Your task to perform on an android device: check storage Image 0: 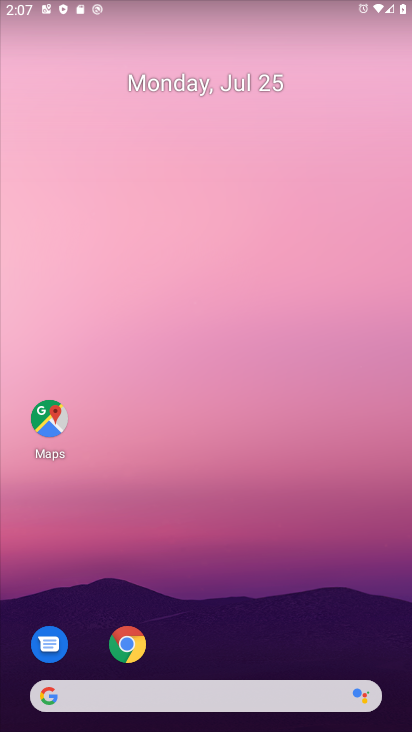
Step 0: drag from (392, 641) to (173, 4)
Your task to perform on an android device: check storage Image 1: 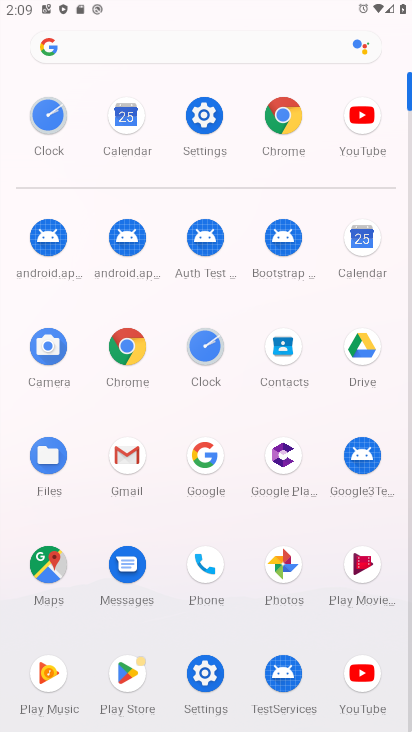
Step 1: click (211, 668)
Your task to perform on an android device: check storage Image 2: 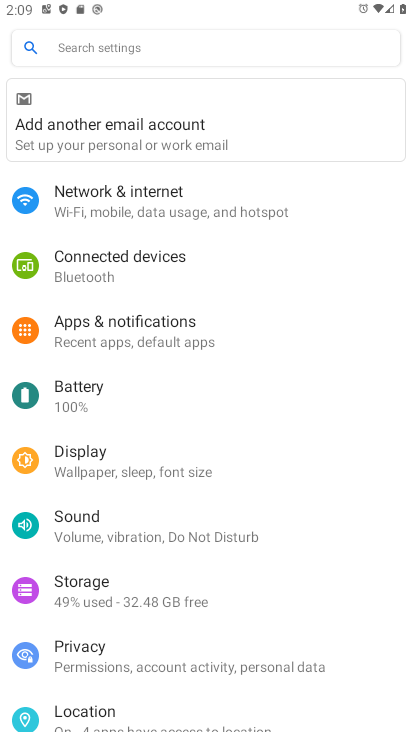
Step 2: click (93, 598)
Your task to perform on an android device: check storage Image 3: 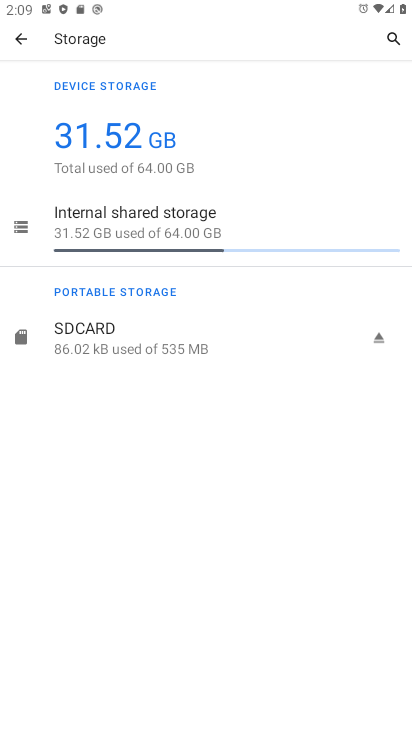
Step 3: click (100, 216)
Your task to perform on an android device: check storage Image 4: 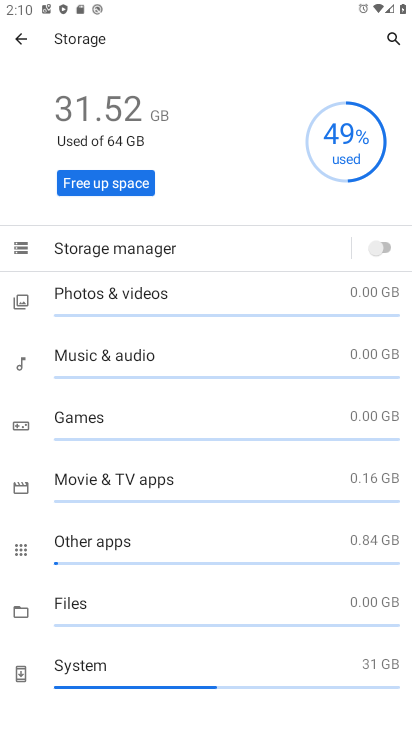
Step 4: task complete